Your task to perform on an android device: Go to Reddit.com Image 0: 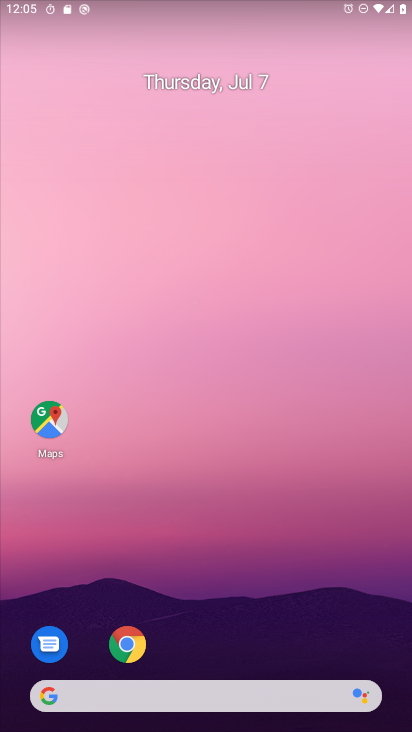
Step 0: drag from (213, 646) to (213, 98)
Your task to perform on an android device: Go to Reddit.com Image 1: 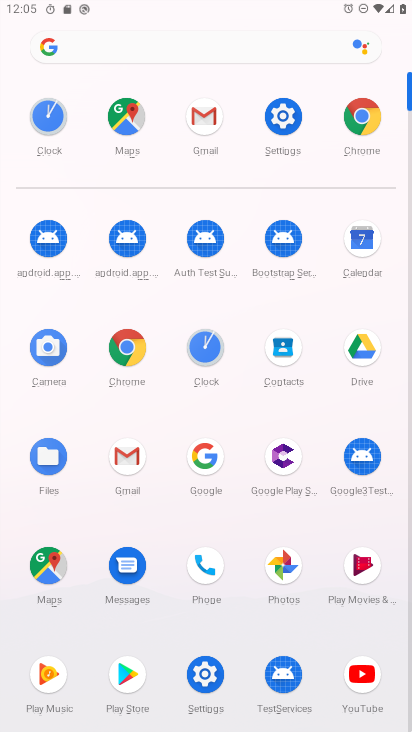
Step 1: click (213, 461)
Your task to perform on an android device: Go to Reddit.com Image 2: 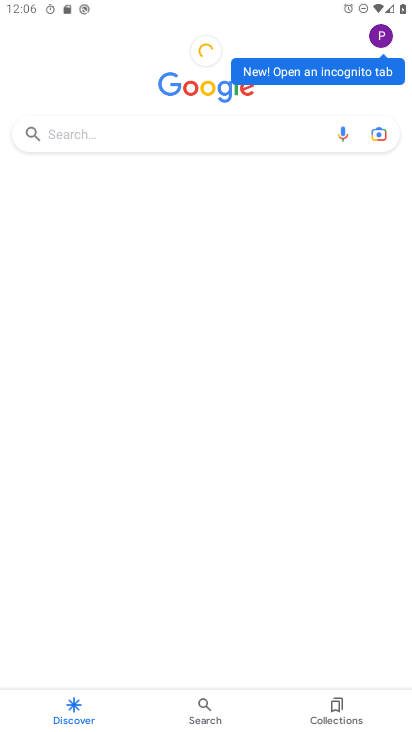
Step 2: click (133, 141)
Your task to perform on an android device: Go to Reddit.com Image 3: 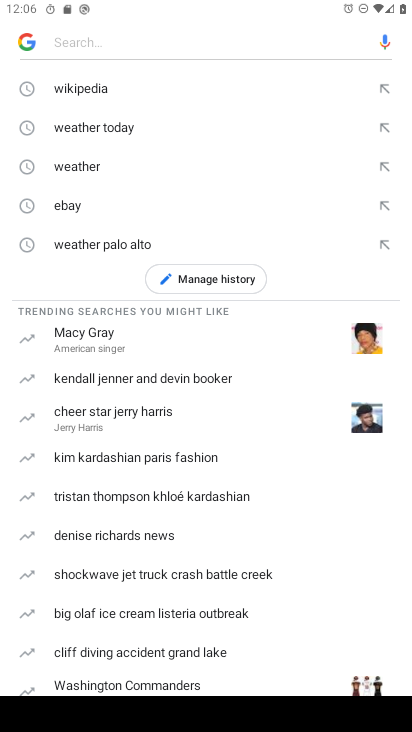
Step 3: type "reddit.com"
Your task to perform on an android device: Go to Reddit.com Image 4: 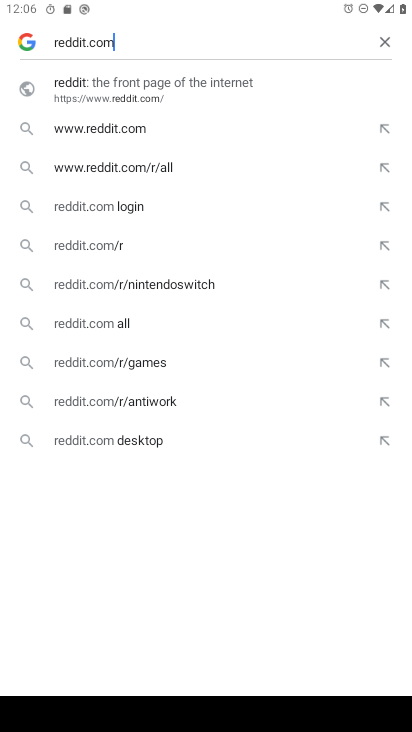
Step 4: click (84, 133)
Your task to perform on an android device: Go to Reddit.com Image 5: 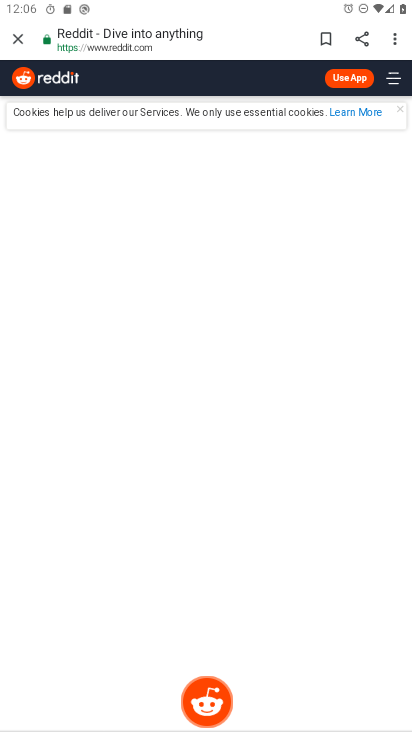
Step 5: task complete